Your task to perform on an android device: change the upload size in google photos Image 0: 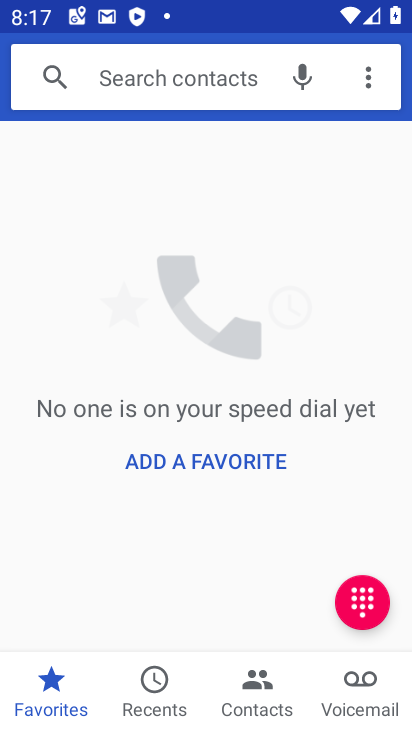
Step 0: press home button
Your task to perform on an android device: change the upload size in google photos Image 1: 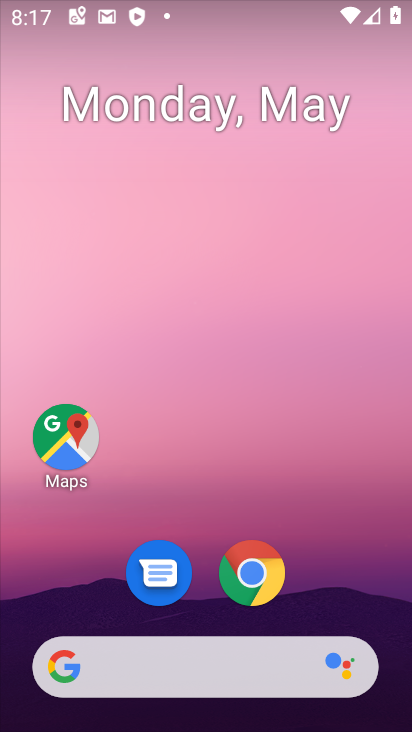
Step 1: drag from (157, 678) to (174, 144)
Your task to perform on an android device: change the upload size in google photos Image 2: 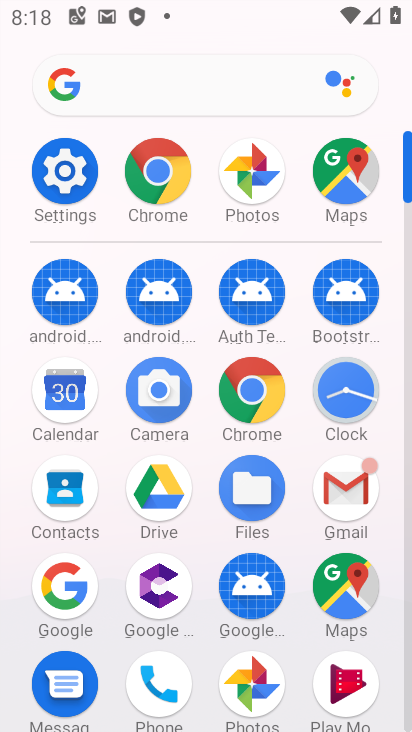
Step 2: click (233, 678)
Your task to perform on an android device: change the upload size in google photos Image 3: 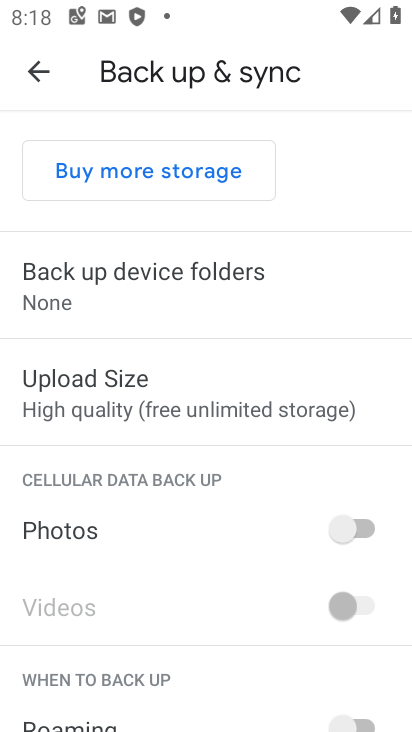
Step 3: click (210, 408)
Your task to perform on an android device: change the upload size in google photos Image 4: 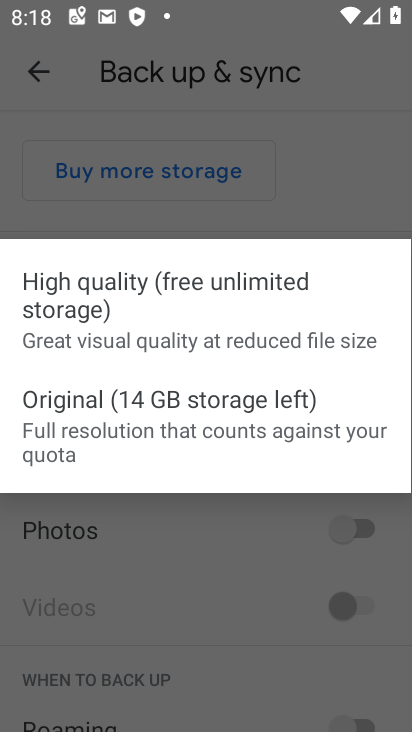
Step 4: click (266, 437)
Your task to perform on an android device: change the upload size in google photos Image 5: 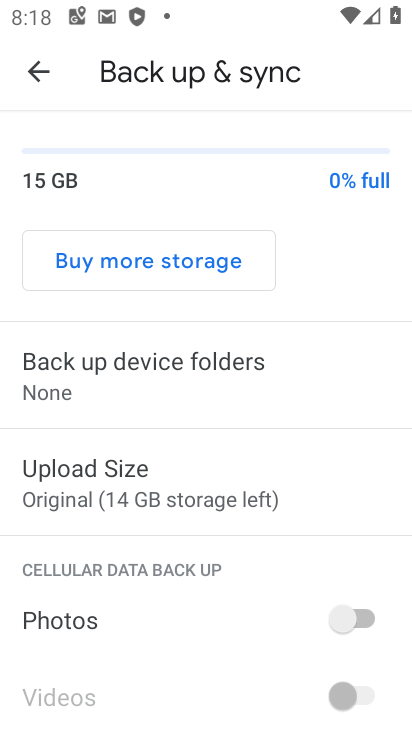
Step 5: task complete